Your task to perform on an android device: Go to Yahoo.com Image 0: 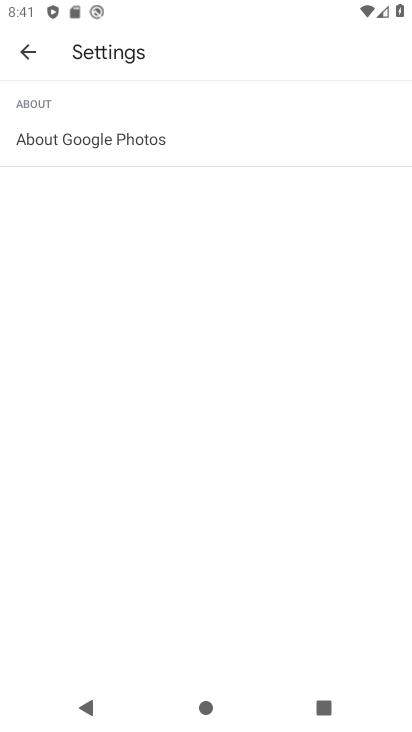
Step 0: press back button
Your task to perform on an android device: Go to Yahoo.com Image 1: 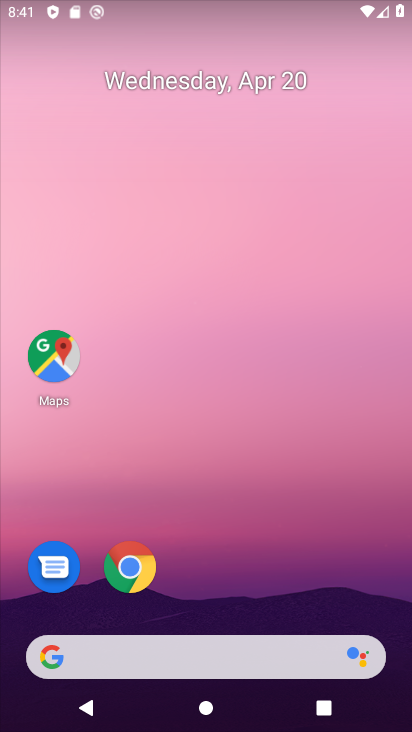
Step 1: click (123, 566)
Your task to perform on an android device: Go to Yahoo.com Image 2: 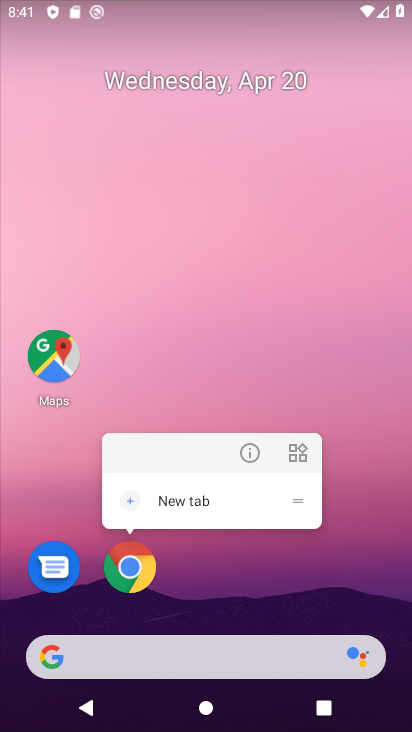
Step 2: click (125, 570)
Your task to perform on an android device: Go to Yahoo.com Image 3: 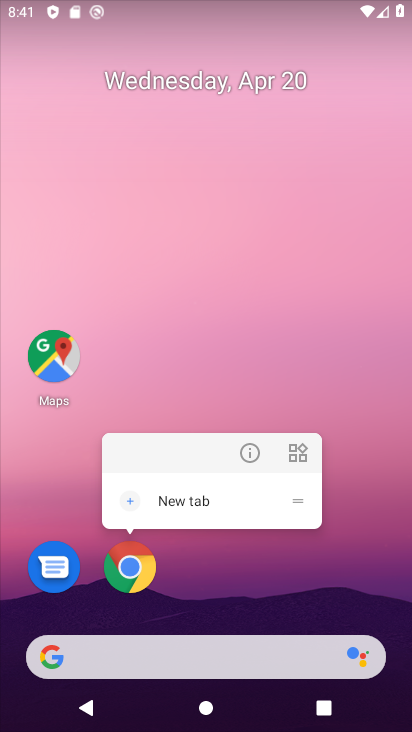
Step 3: click (117, 582)
Your task to perform on an android device: Go to Yahoo.com Image 4: 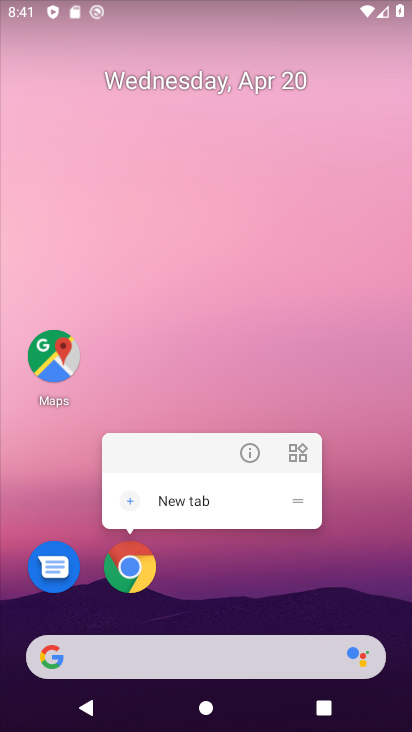
Step 4: click (124, 568)
Your task to perform on an android device: Go to Yahoo.com Image 5: 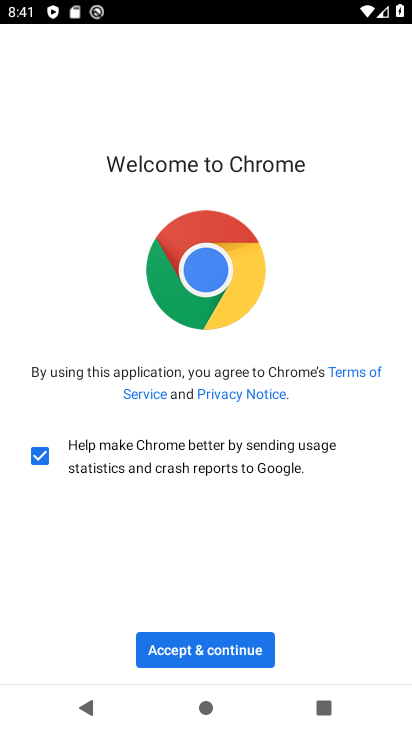
Step 5: click (254, 653)
Your task to perform on an android device: Go to Yahoo.com Image 6: 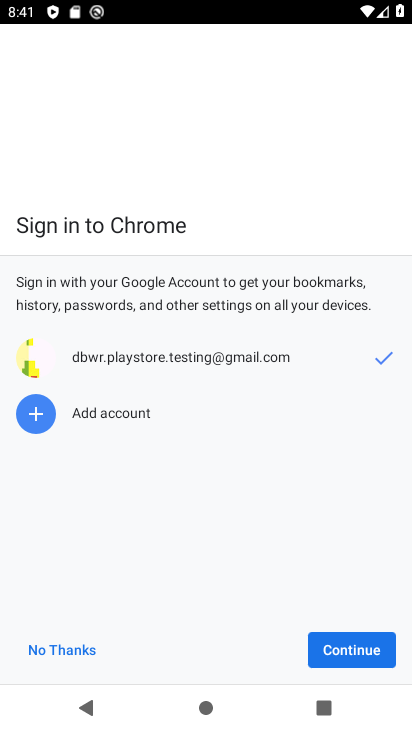
Step 6: click (366, 654)
Your task to perform on an android device: Go to Yahoo.com Image 7: 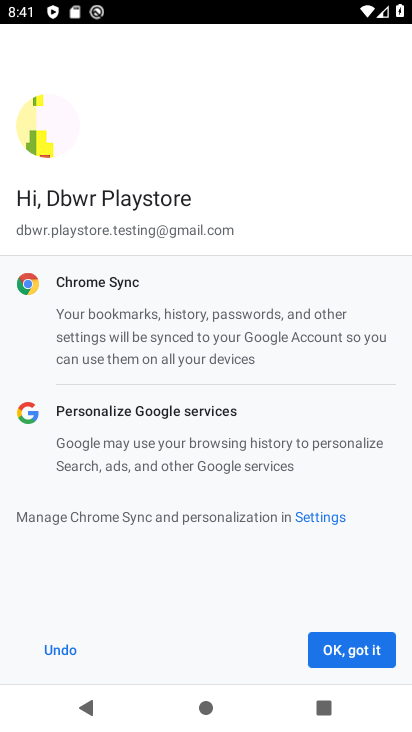
Step 7: click (366, 654)
Your task to perform on an android device: Go to Yahoo.com Image 8: 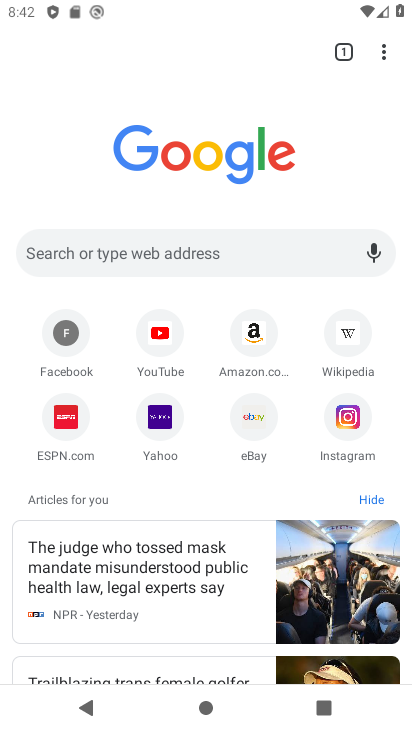
Step 8: click (117, 445)
Your task to perform on an android device: Go to Yahoo.com Image 9: 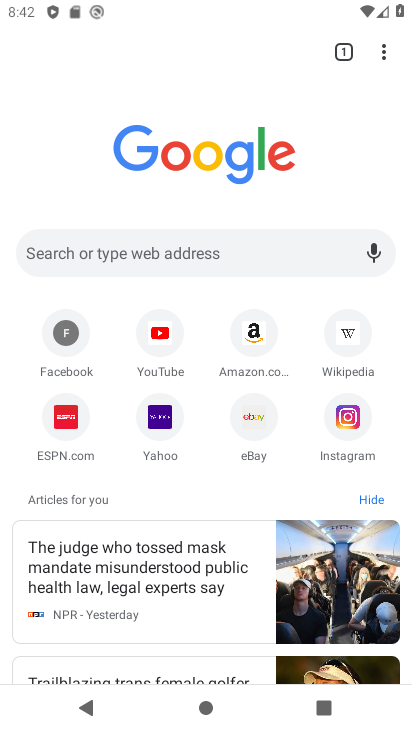
Step 9: click (154, 436)
Your task to perform on an android device: Go to Yahoo.com Image 10: 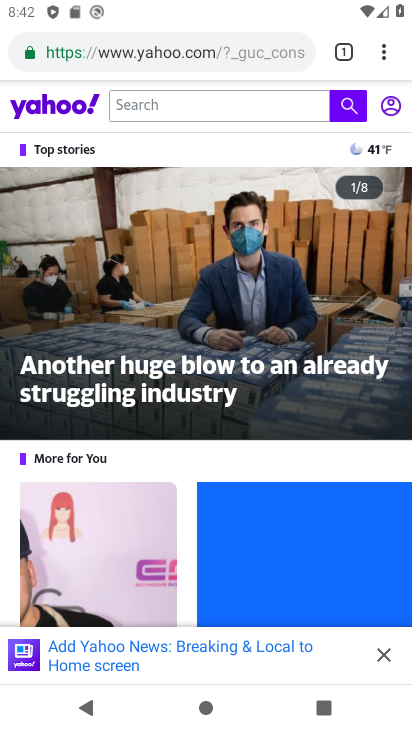
Step 10: task complete